Your task to perform on an android device: turn on priority inbox in the gmail app Image 0: 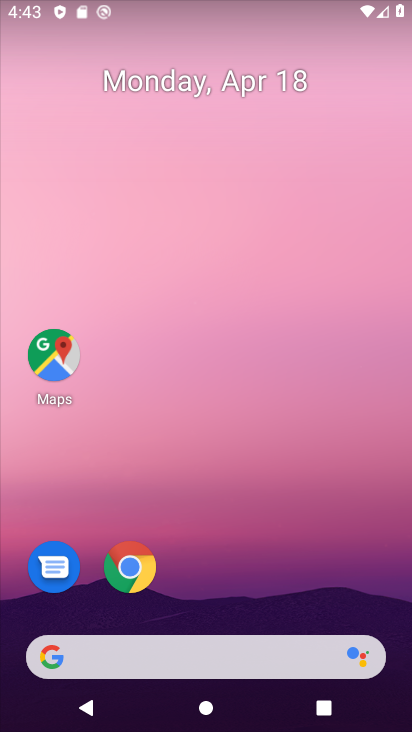
Step 0: drag from (204, 649) to (298, 85)
Your task to perform on an android device: turn on priority inbox in the gmail app Image 1: 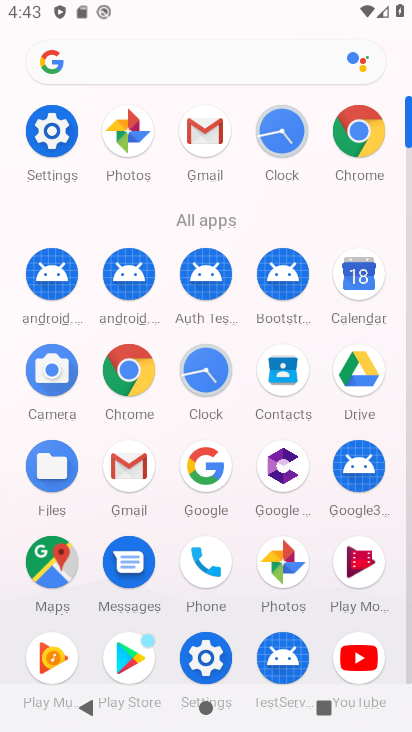
Step 1: click (191, 151)
Your task to perform on an android device: turn on priority inbox in the gmail app Image 2: 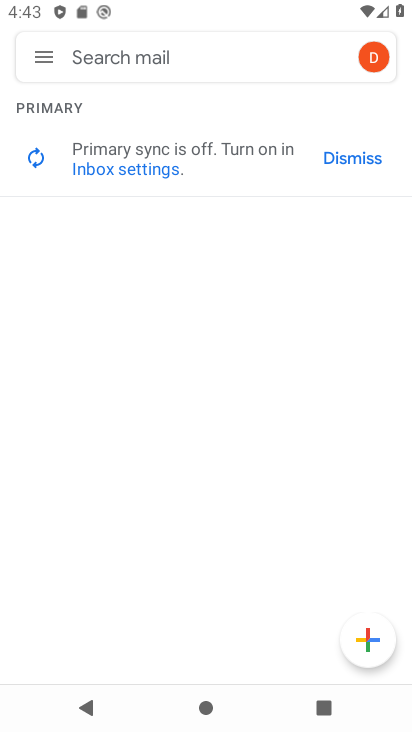
Step 2: click (44, 60)
Your task to perform on an android device: turn on priority inbox in the gmail app Image 3: 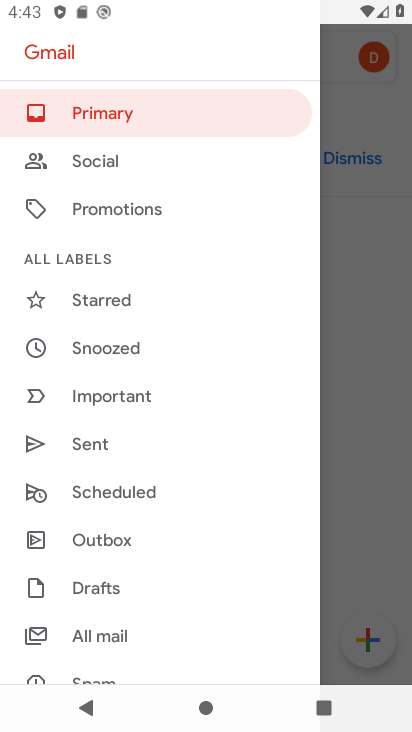
Step 3: drag from (98, 590) to (123, 289)
Your task to perform on an android device: turn on priority inbox in the gmail app Image 4: 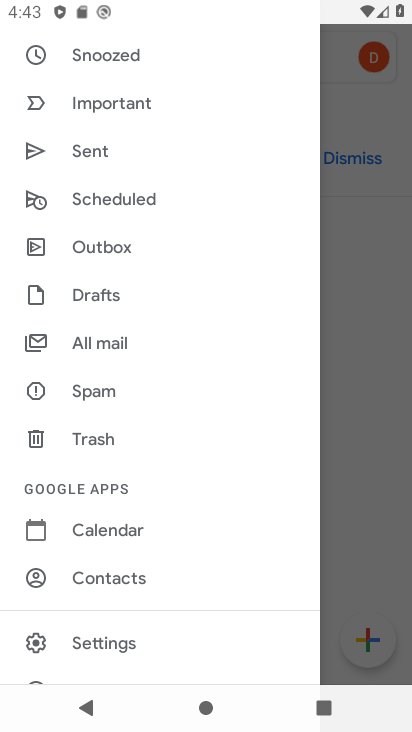
Step 4: click (101, 651)
Your task to perform on an android device: turn on priority inbox in the gmail app Image 5: 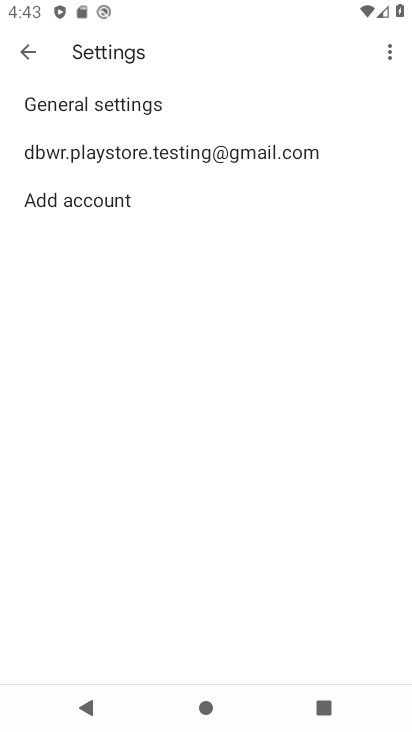
Step 5: click (77, 151)
Your task to perform on an android device: turn on priority inbox in the gmail app Image 6: 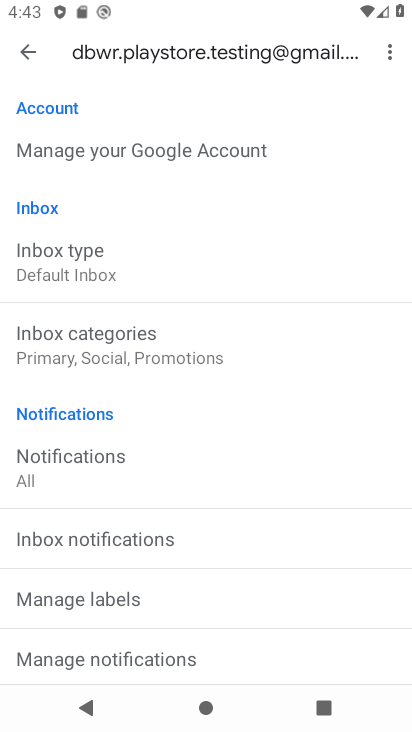
Step 6: click (123, 282)
Your task to perform on an android device: turn on priority inbox in the gmail app Image 7: 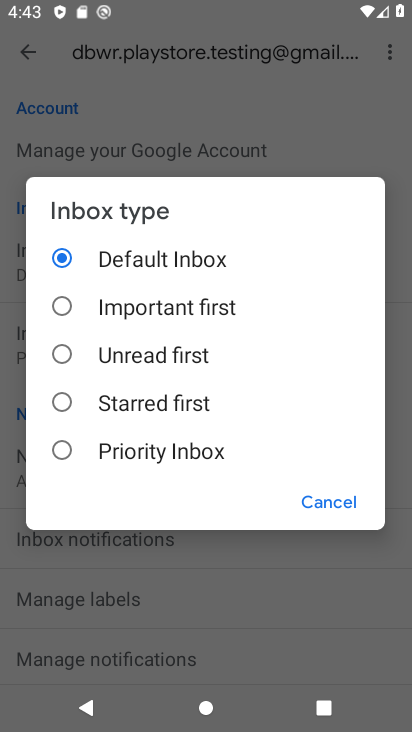
Step 7: click (150, 452)
Your task to perform on an android device: turn on priority inbox in the gmail app Image 8: 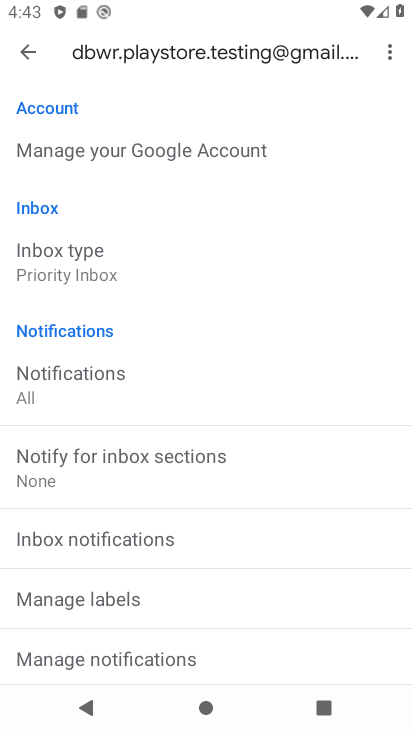
Step 8: task complete